Your task to perform on an android device: Is it going to rain today? Image 0: 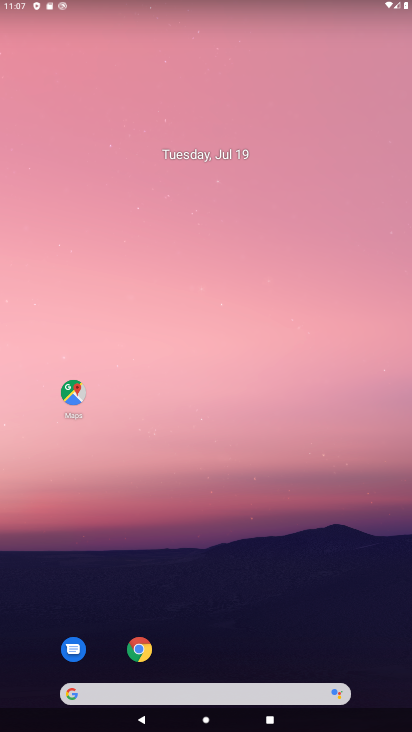
Step 0: drag from (278, 692) to (285, 56)
Your task to perform on an android device: Is it going to rain today? Image 1: 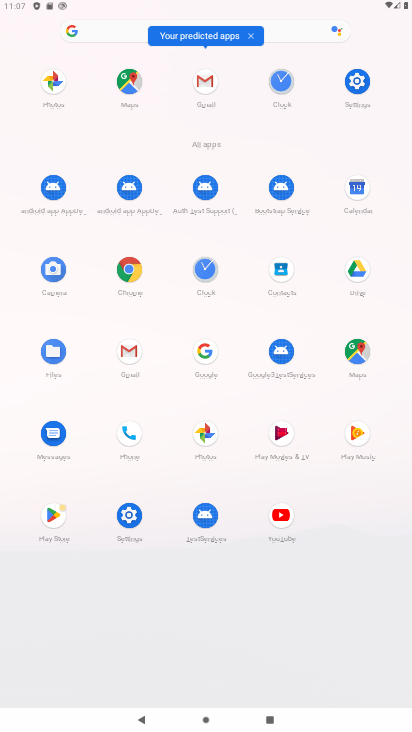
Step 1: click (132, 272)
Your task to perform on an android device: Is it going to rain today? Image 2: 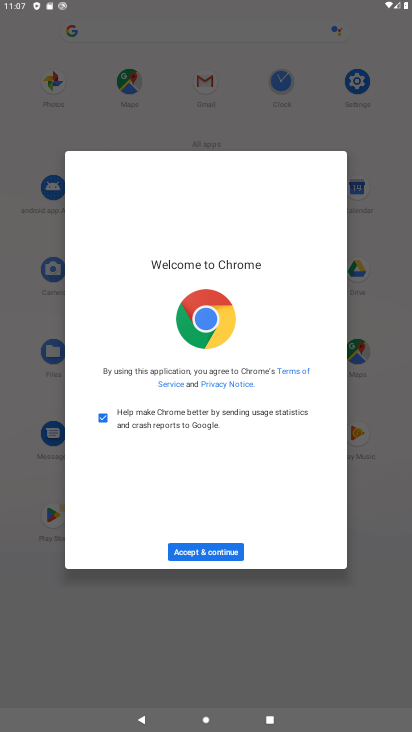
Step 2: type "is it going to rain today"
Your task to perform on an android device: Is it going to rain today? Image 3: 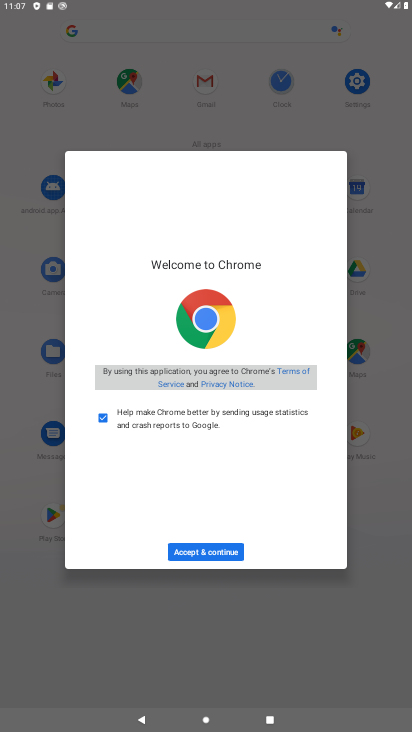
Step 3: click (236, 546)
Your task to perform on an android device: Is it going to rain today? Image 4: 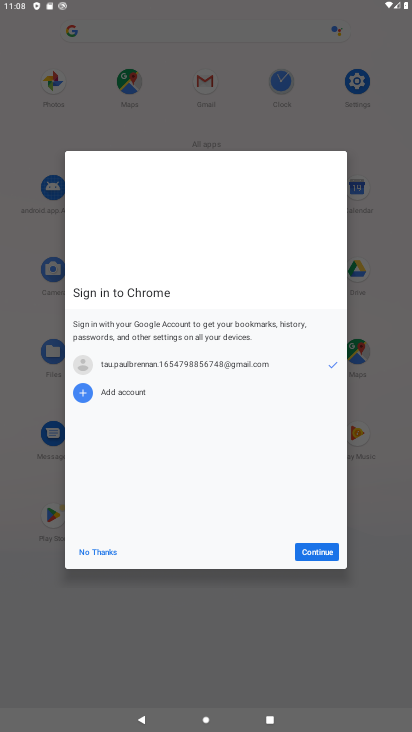
Step 4: click (105, 551)
Your task to perform on an android device: Is it going to rain today? Image 5: 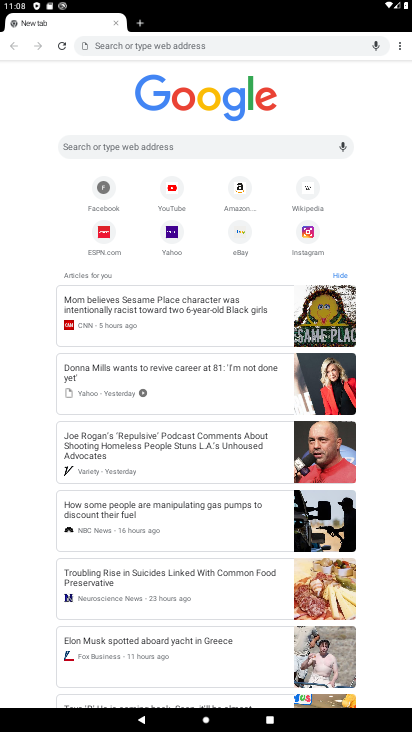
Step 5: click (166, 41)
Your task to perform on an android device: Is it going to rain today? Image 6: 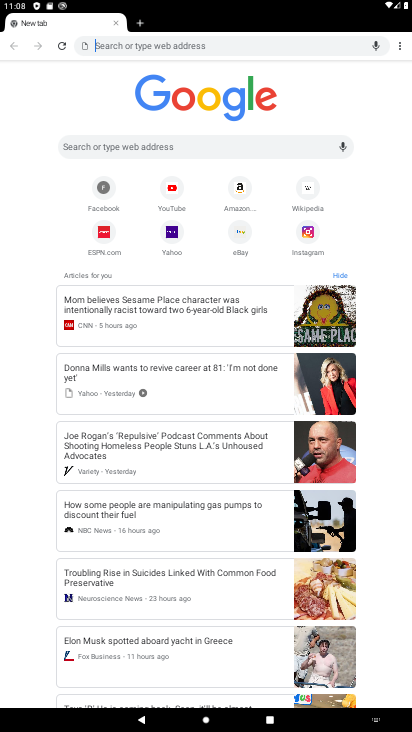
Step 6: type "going to rain today"
Your task to perform on an android device: Is it going to rain today? Image 7: 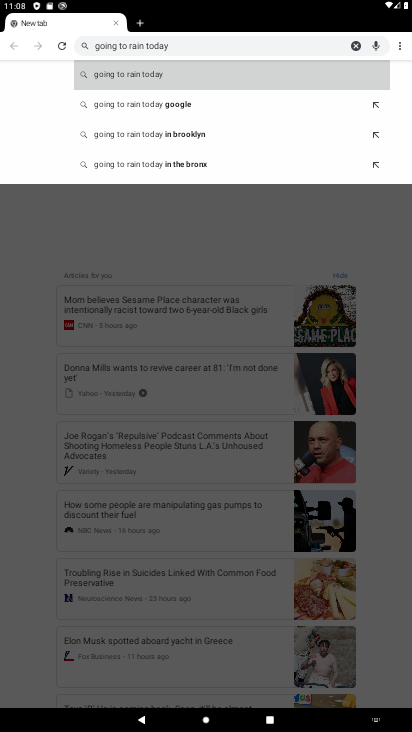
Step 7: click (163, 77)
Your task to perform on an android device: Is it going to rain today? Image 8: 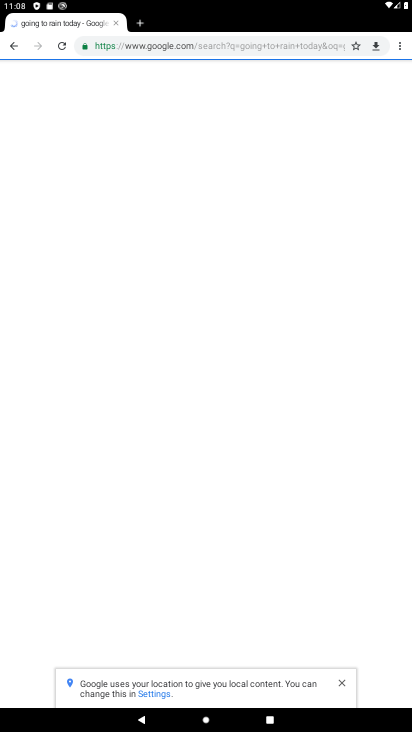
Step 8: task complete